Your task to perform on an android device: Open calendar and show me the second week of next month Image 0: 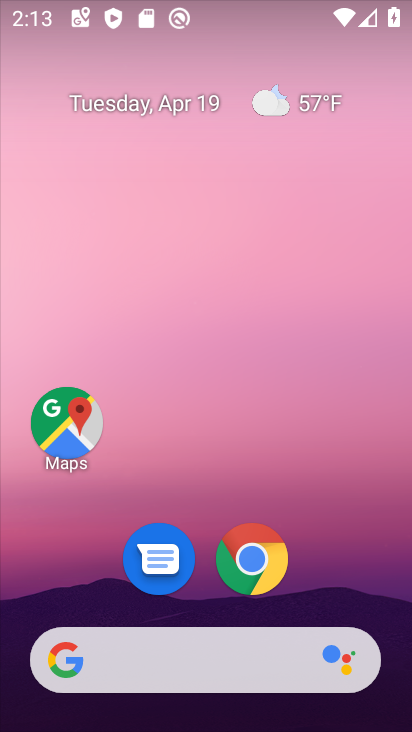
Step 0: drag from (209, 595) to (204, 14)
Your task to perform on an android device: Open calendar and show me the second week of next month Image 1: 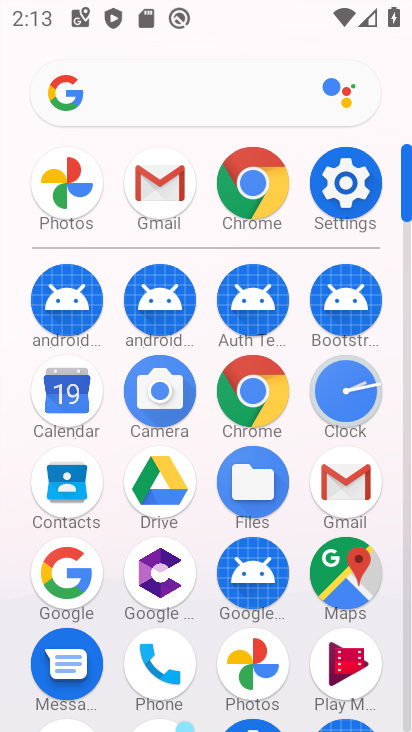
Step 1: click (66, 387)
Your task to perform on an android device: Open calendar and show me the second week of next month Image 2: 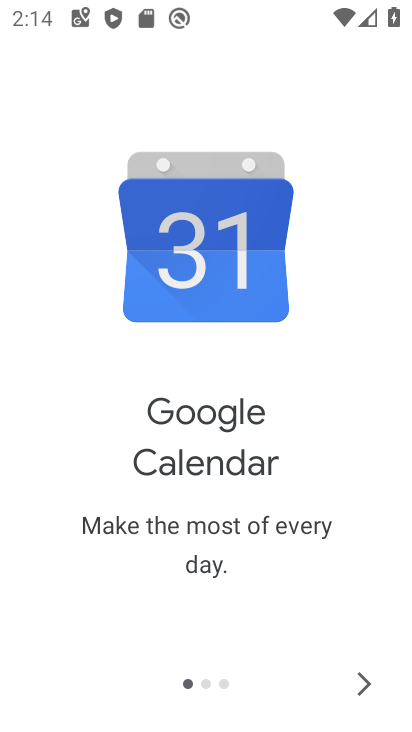
Step 2: click (354, 675)
Your task to perform on an android device: Open calendar and show me the second week of next month Image 3: 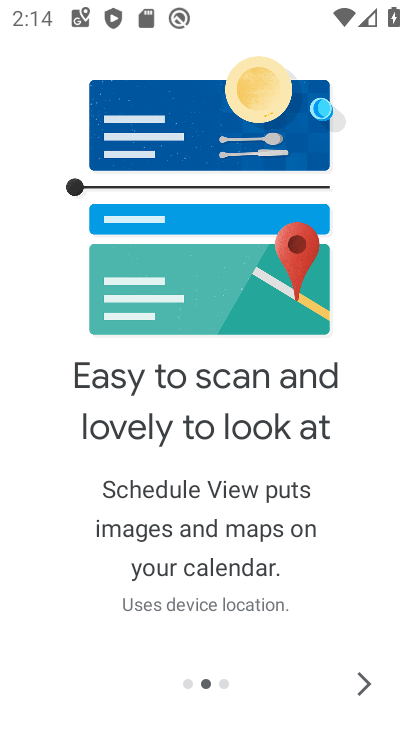
Step 3: click (355, 680)
Your task to perform on an android device: Open calendar and show me the second week of next month Image 4: 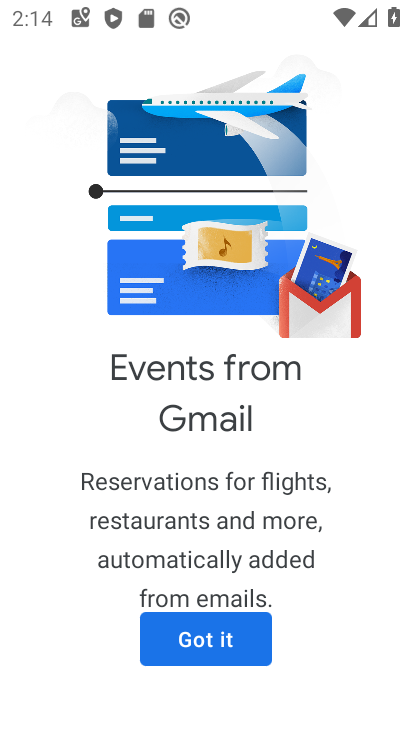
Step 4: click (194, 642)
Your task to perform on an android device: Open calendar and show me the second week of next month Image 5: 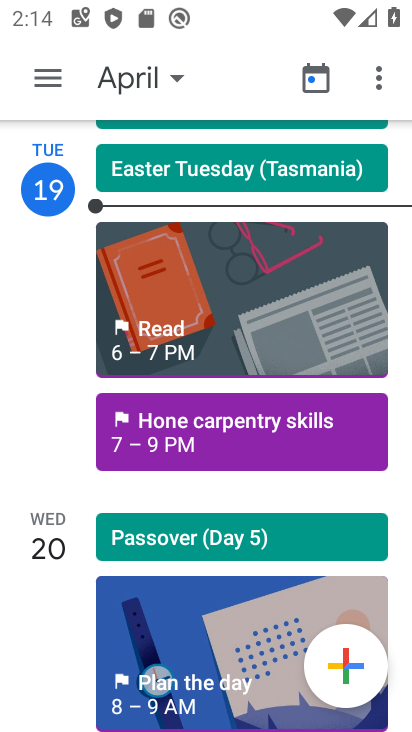
Step 5: drag from (73, 676) to (67, 217)
Your task to perform on an android device: Open calendar and show me the second week of next month Image 6: 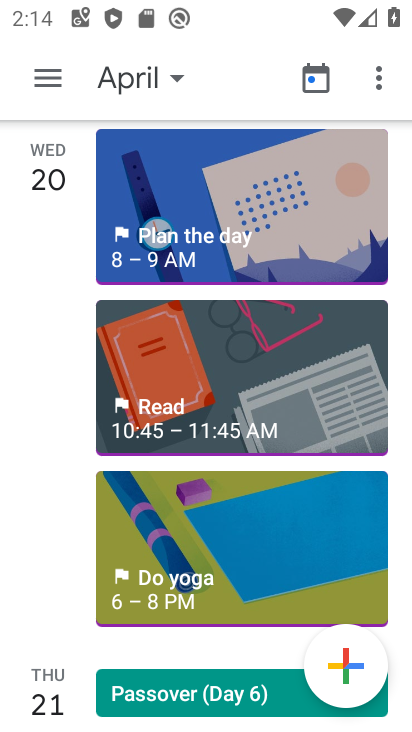
Step 6: click (53, 76)
Your task to perform on an android device: Open calendar and show me the second week of next month Image 7: 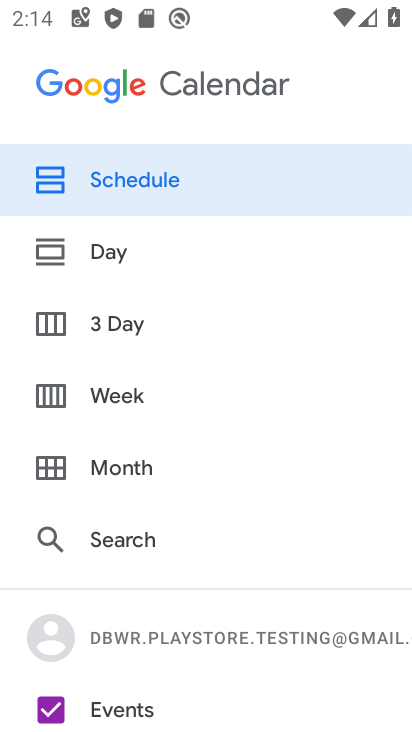
Step 7: click (153, 393)
Your task to perform on an android device: Open calendar and show me the second week of next month Image 8: 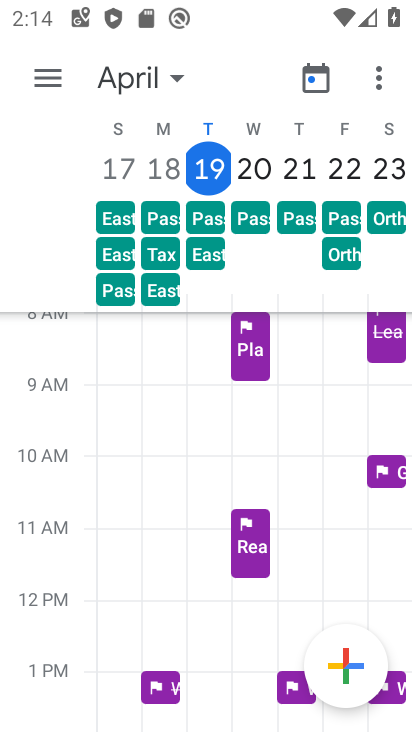
Step 8: drag from (376, 152) to (20, 139)
Your task to perform on an android device: Open calendar and show me the second week of next month Image 9: 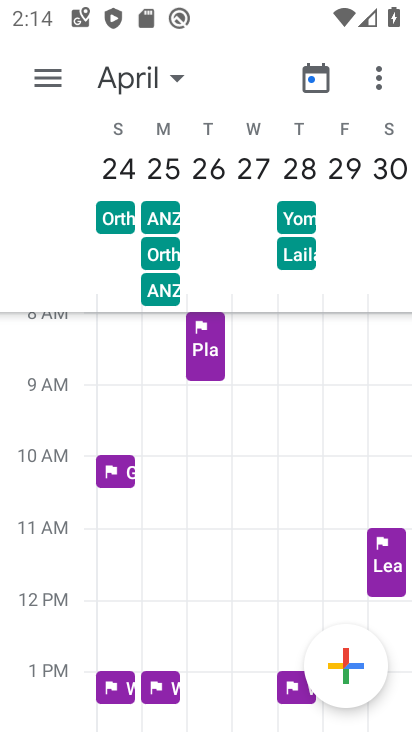
Step 9: drag from (373, 167) to (10, 164)
Your task to perform on an android device: Open calendar and show me the second week of next month Image 10: 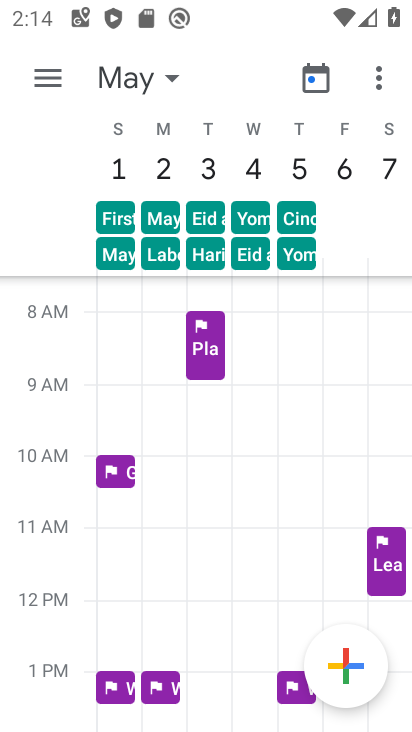
Step 10: drag from (388, 161) to (77, 168)
Your task to perform on an android device: Open calendar and show me the second week of next month Image 11: 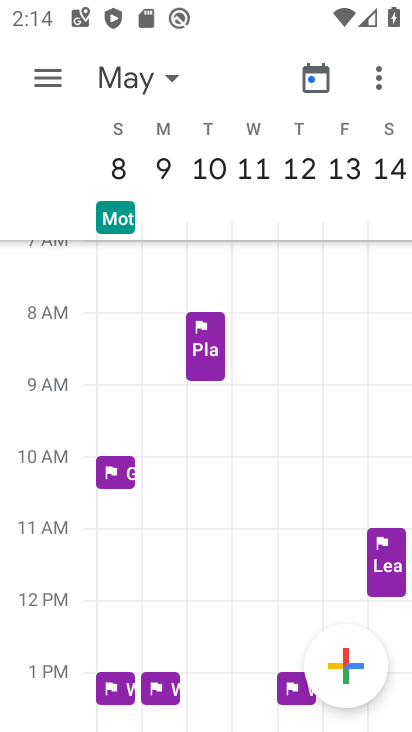
Step 11: click (115, 168)
Your task to perform on an android device: Open calendar and show me the second week of next month Image 12: 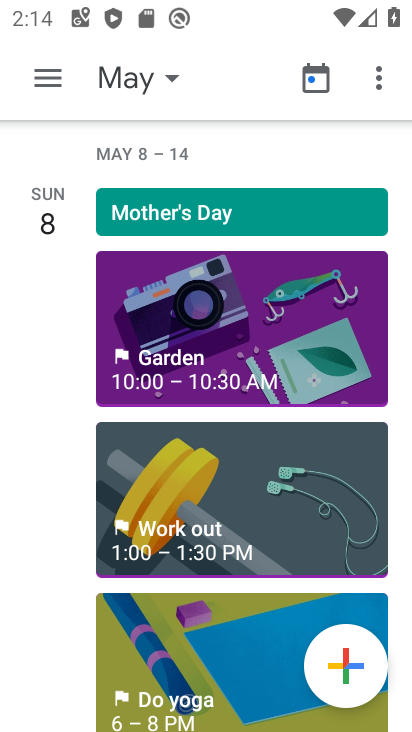
Step 12: task complete